Your task to perform on an android device: turn on notifications settings in the gmail app Image 0: 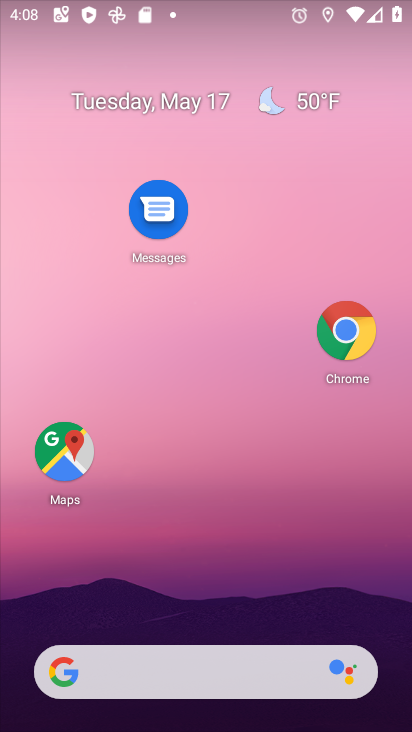
Step 0: drag from (295, 521) to (183, 28)
Your task to perform on an android device: turn on notifications settings in the gmail app Image 1: 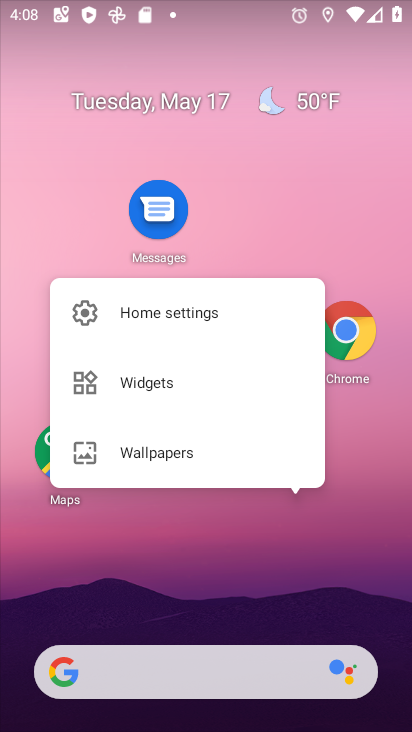
Step 1: click (240, 577)
Your task to perform on an android device: turn on notifications settings in the gmail app Image 2: 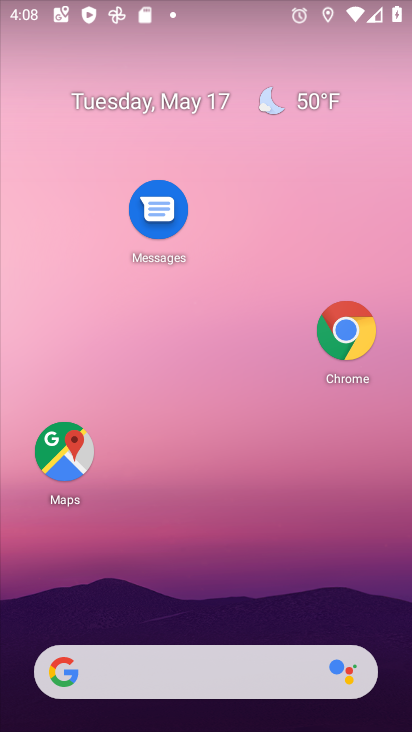
Step 2: drag from (240, 577) to (186, 50)
Your task to perform on an android device: turn on notifications settings in the gmail app Image 3: 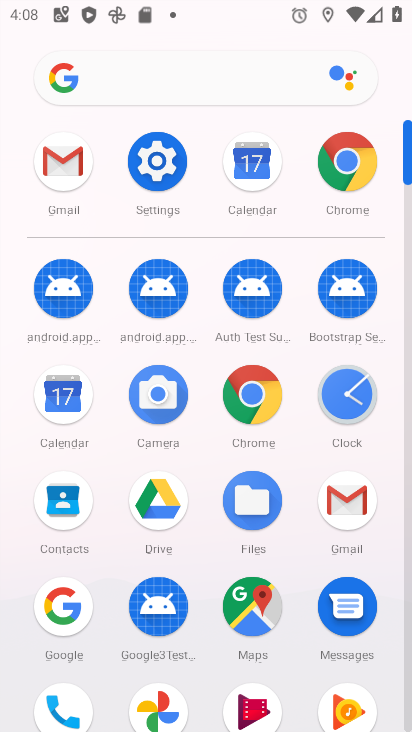
Step 3: click (55, 184)
Your task to perform on an android device: turn on notifications settings in the gmail app Image 4: 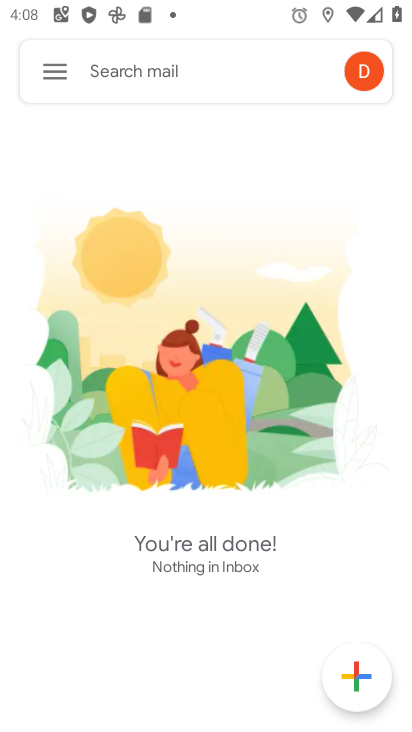
Step 4: click (47, 63)
Your task to perform on an android device: turn on notifications settings in the gmail app Image 5: 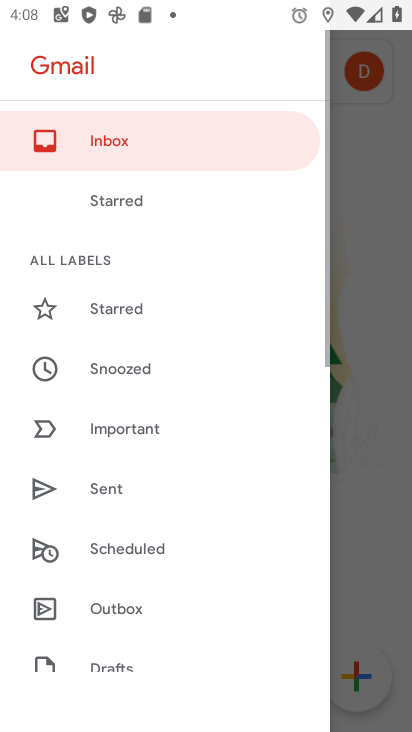
Step 5: drag from (118, 552) to (58, 190)
Your task to perform on an android device: turn on notifications settings in the gmail app Image 6: 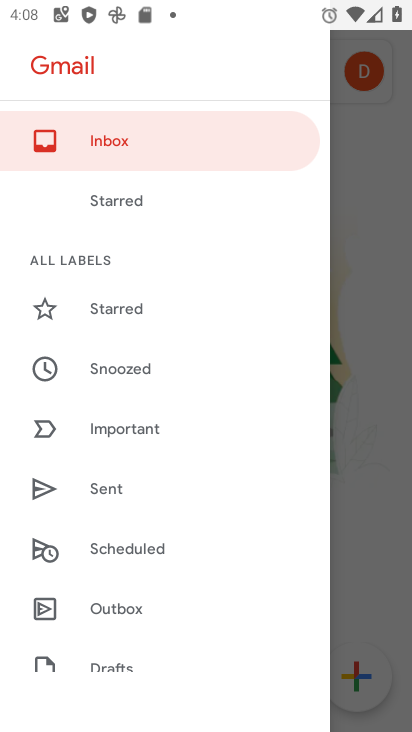
Step 6: drag from (112, 555) to (79, 55)
Your task to perform on an android device: turn on notifications settings in the gmail app Image 7: 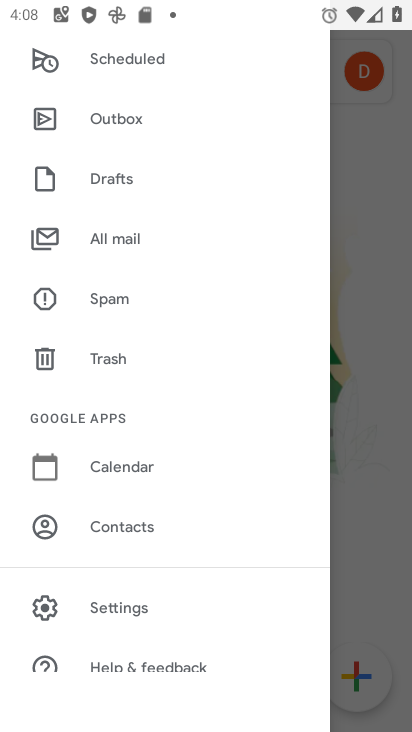
Step 7: click (80, 608)
Your task to perform on an android device: turn on notifications settings in the gmail app Image 8: 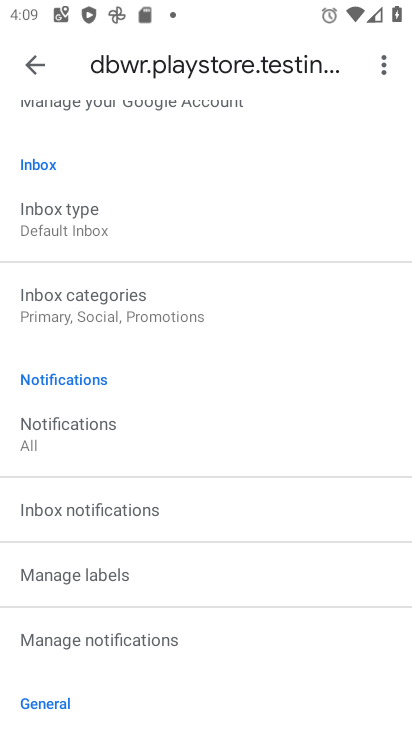
Step 8: drag from (93, 489) to (92, 264)
Your task to perform on an android device: turn on notifications settings in the gmail app Image 9: 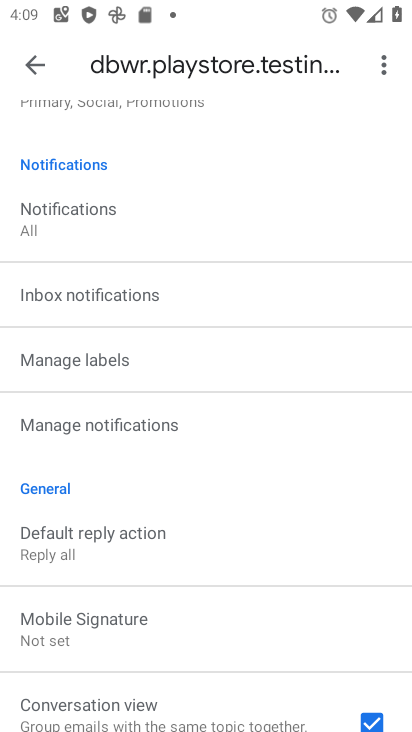
Step 9: drag from (120, 513) to (108, 366)
Your task to perform on an android device: turn on notifications settings in the gmail app Image 10: 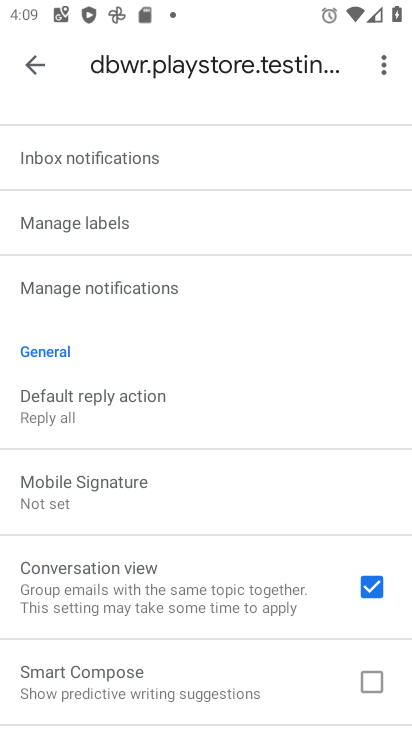
Step 10: click (107, 275)
Your task to perform on an android device: turn on notifications settings in the gmail app Image 11: 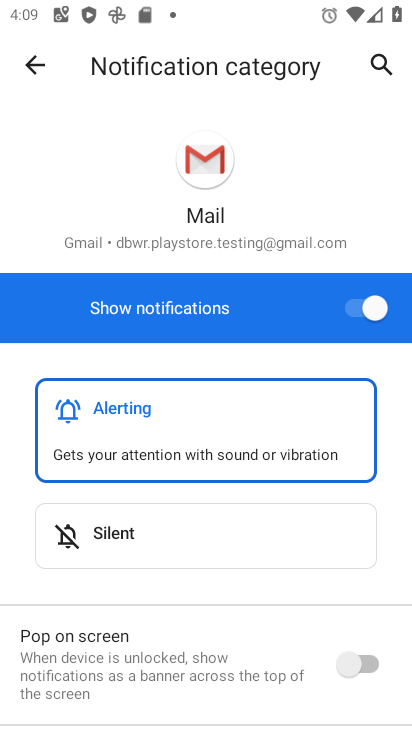
Step 11: click (308, 301)
Your task to perform on an android device: turn on notifications settings in the gmail app Image 12: 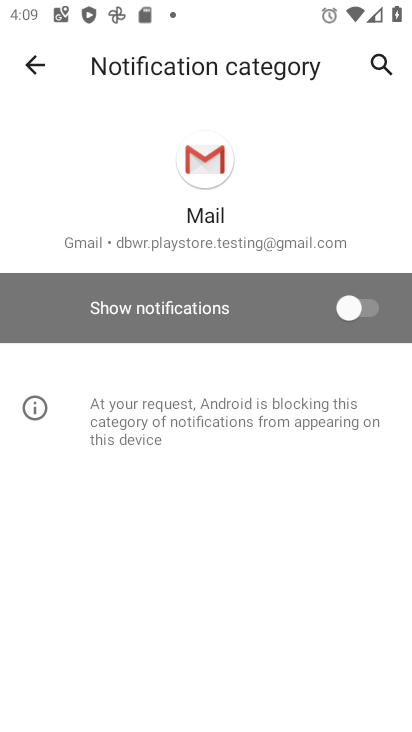
Step 12: click (346, 293)
Your task to perform on an android device: turn on notifications settings in the gmail app Image 13: 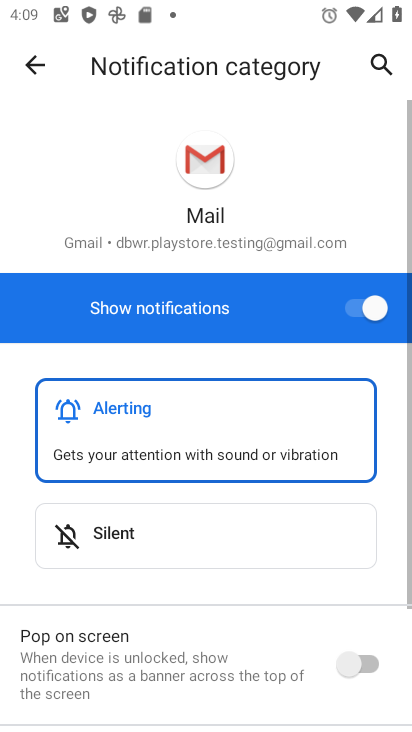
Step 13: task complete